Your task to perform on an android device: Show the shopping cart on ebay. Image 0: 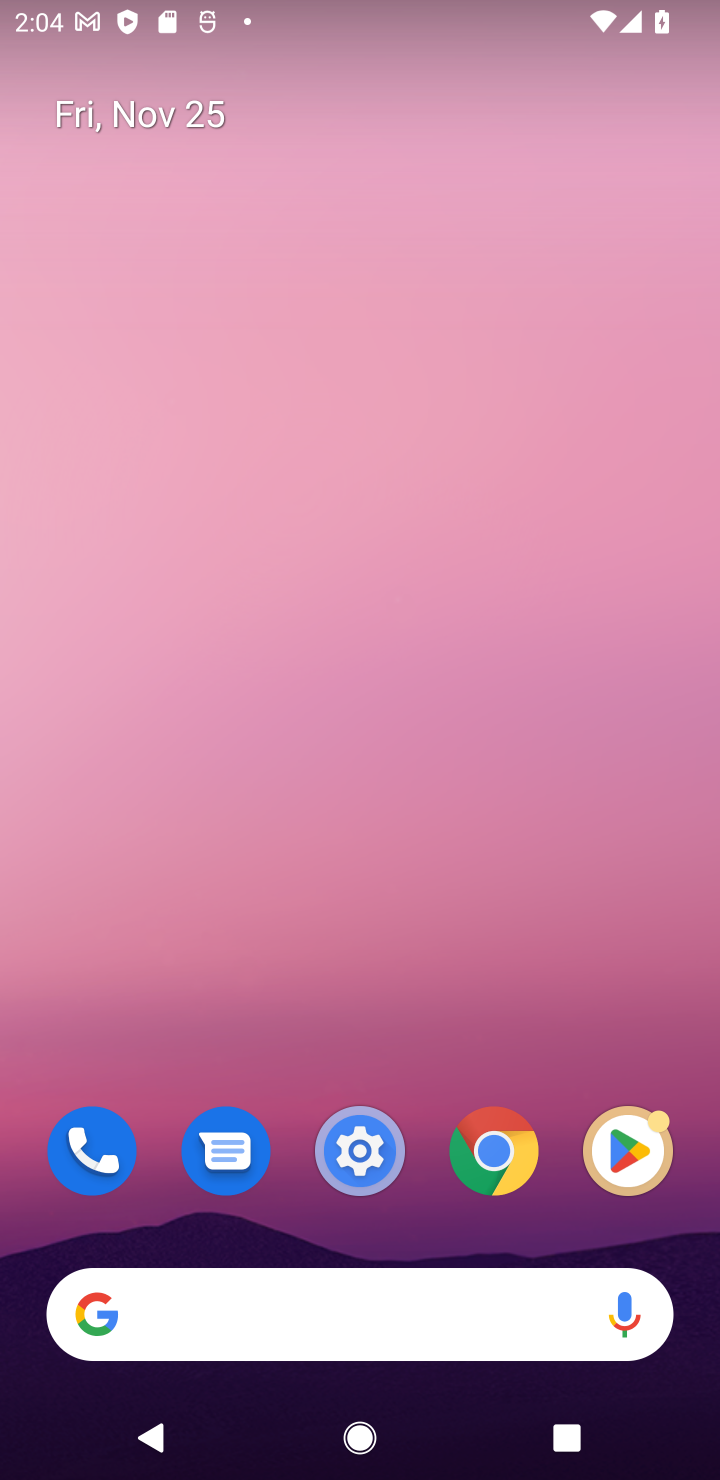
Step 0: click (485, 1305)
Your task to perform on an android device: Show the shopping cart on ebay. Image 1: 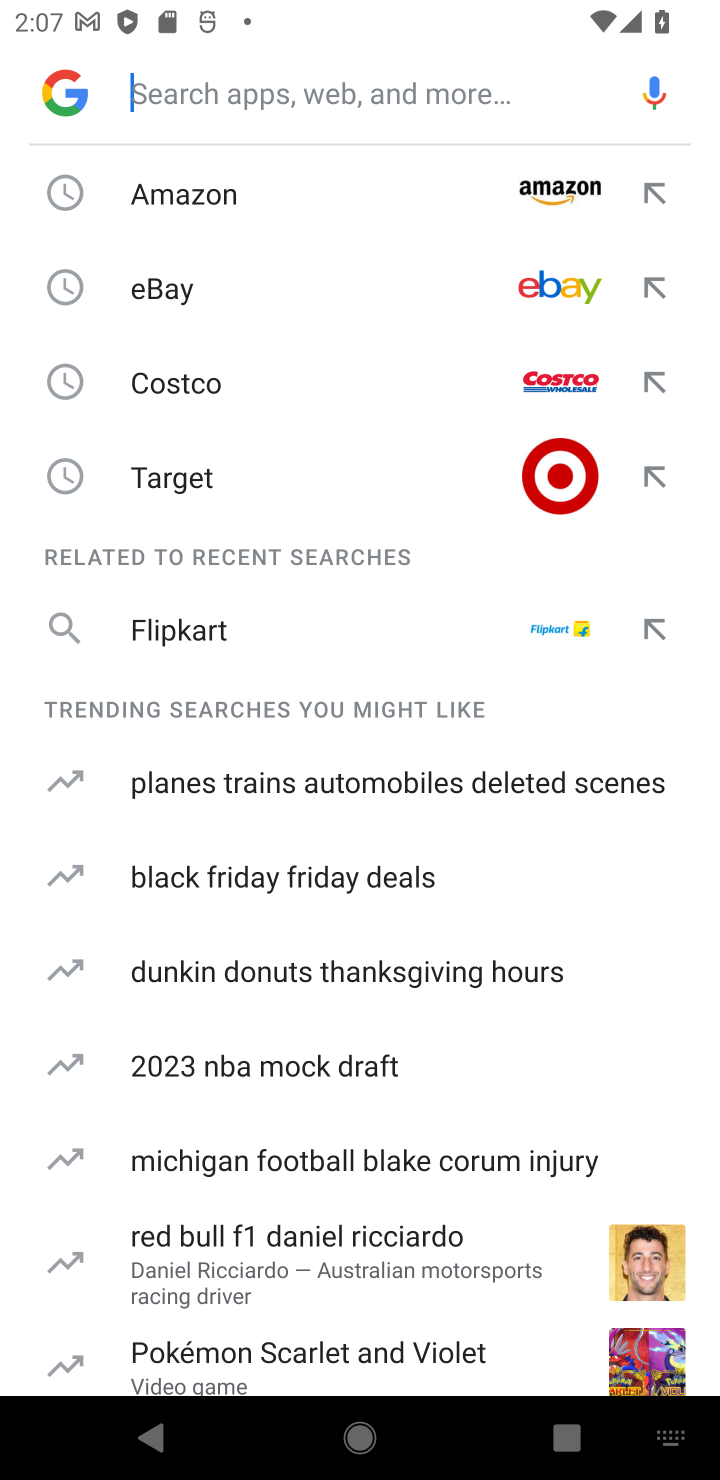
Step 1: click (138, 283)
Your task to perform on an android device: Show the shopping cart on ebay. Image 2: 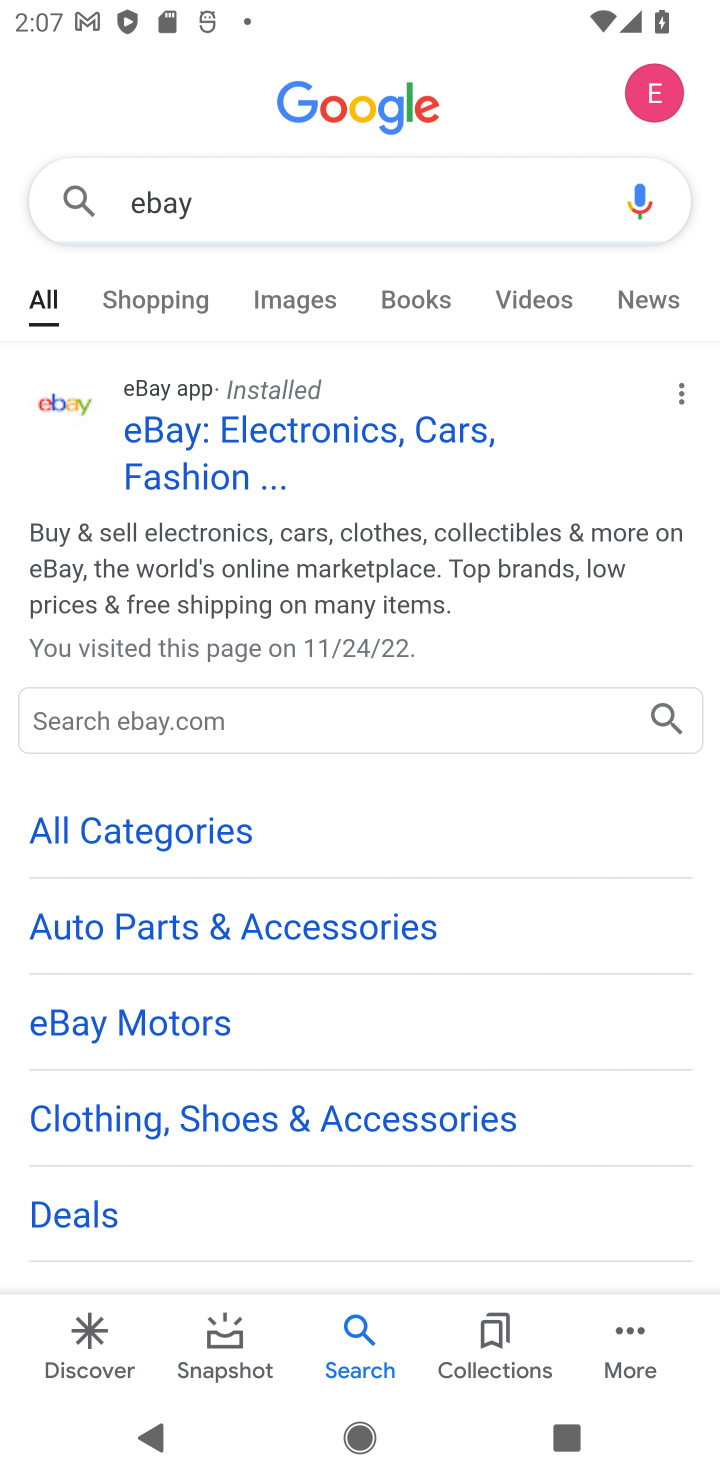
Step 2: click (349, 449)
Your task to perform on an android device: Show the shopping cart on ebay. Image 3: 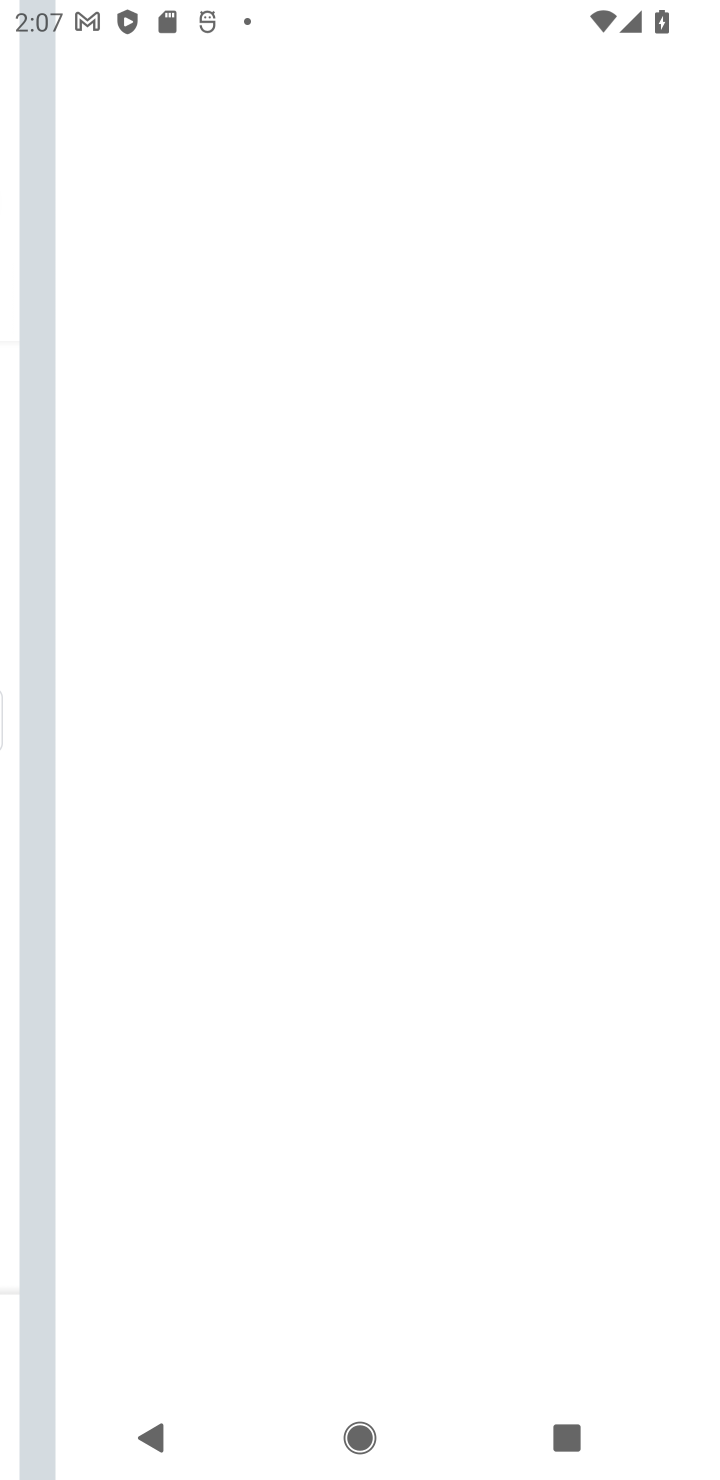
Step 3: task complete